Your task to perform on an android device: Open settings Image 0: 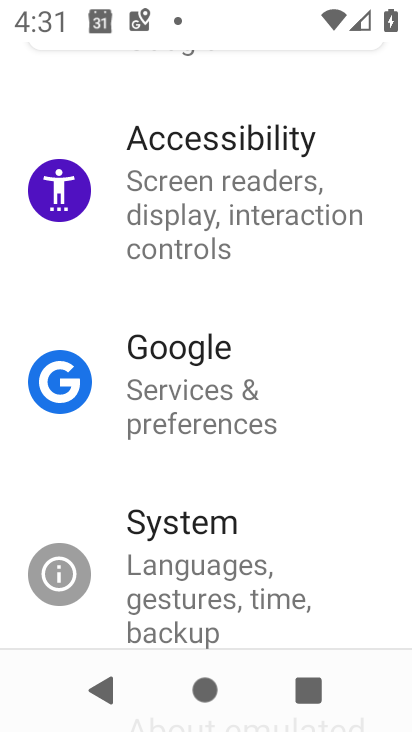
Step 0: drag from (151, 281) to (241, 708)
Your task to perform on an android device: Open settings Image 1: 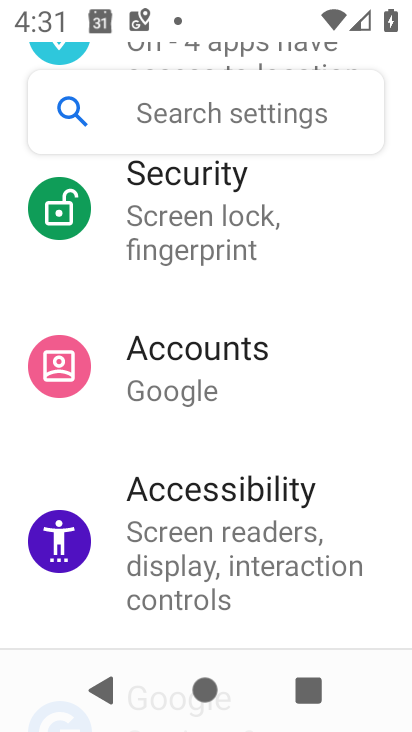
Step 1: task complete